Your task to perform on an android device: Is it going to rain today? Image 0: 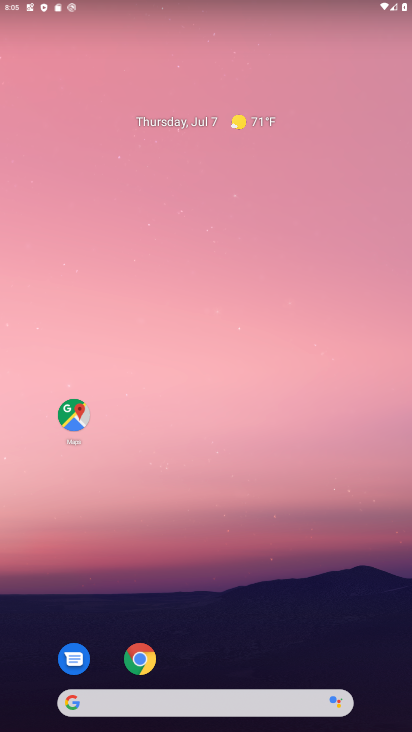
Step 0: click (259, 120)
Your task to perform on an android device: Is it going to rain today? Image 1: 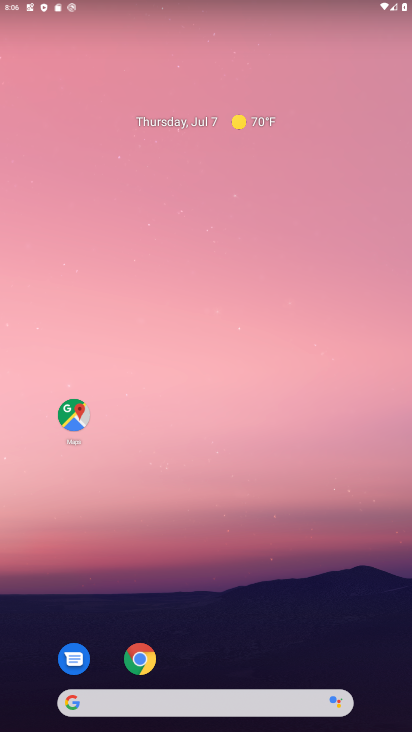
Step 1: click (234, 126)
Your task to perform on an android device: Is it going to rain today? Image 2: 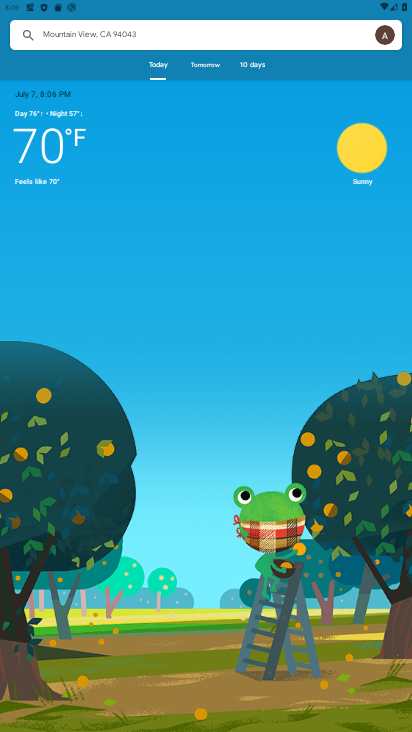
Step 2: task complete